Your task to perform on an android device: turn off picture-in-picture Image 0: 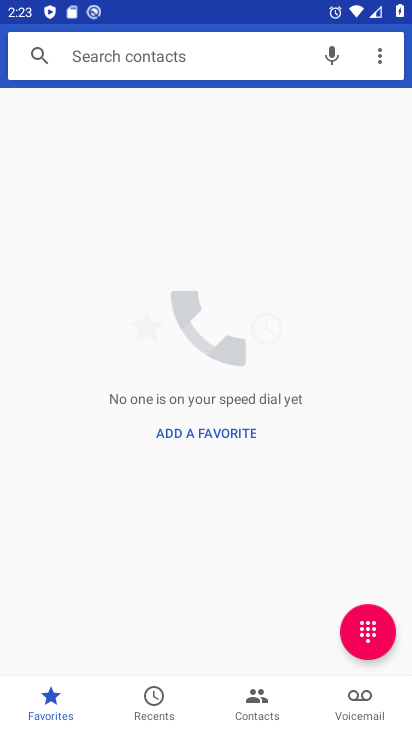
Step 0: press back button
Your task to perform on an android device: turn off picture-in-picture Image 1: 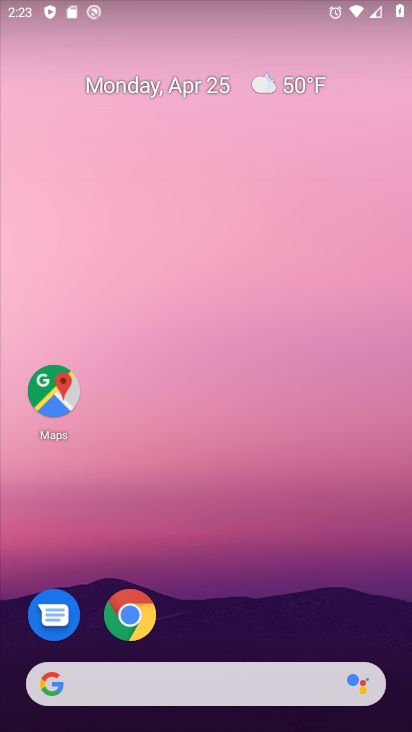
Step 1: click (129, 615)
Your task to perform on an android device: turn off picture-in-picture Image 2: 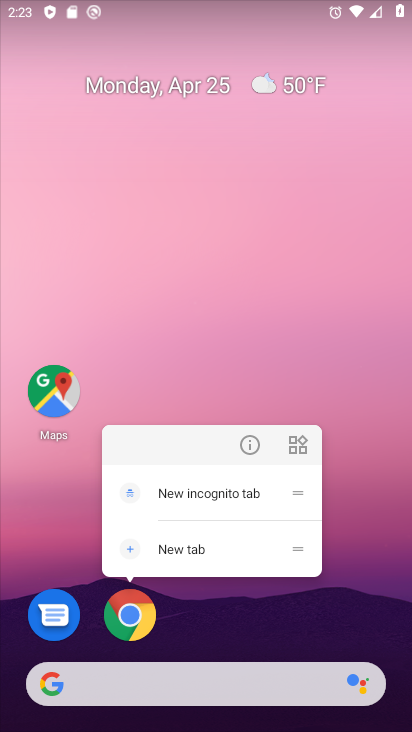
Step 2: click (254, 444)
Your task to perform on an android device: turn off picture-in-picture Image 3: 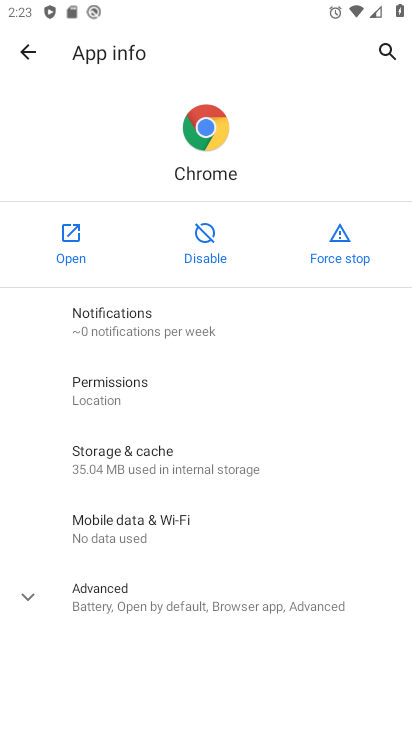
Step 3: click (205, 602)
Your task to perform on an android device: turn off picture-in-picture Image 4: 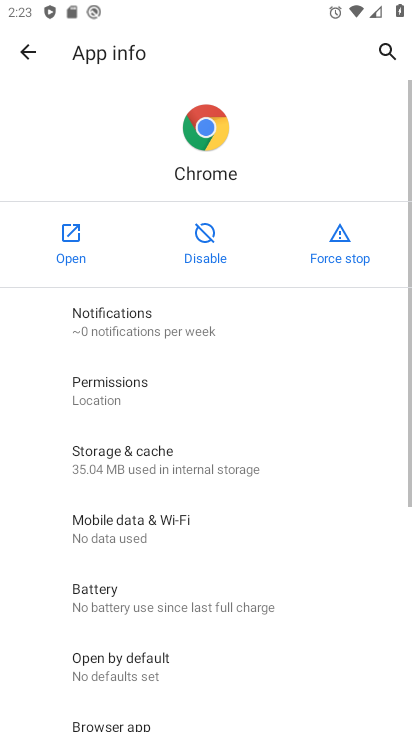
Step 4: drag from (211, 569) to (244, 460)
Your task to perform on an android device: turn off picture-in-picture Image 5: 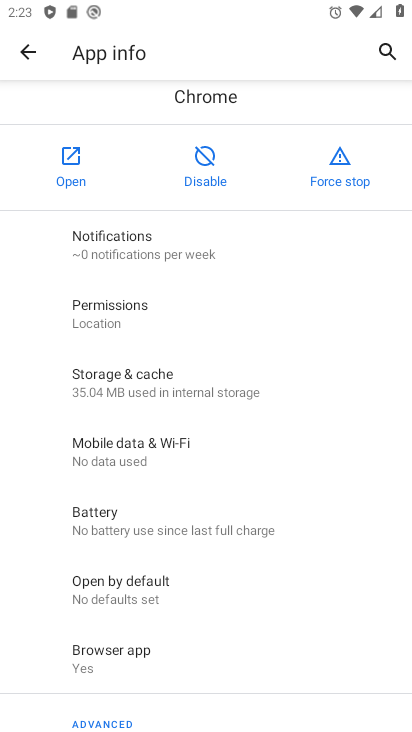
Step 5: drag from (219, 569) to (265, 478)
Your task to perform on an android device: turn off picture-in-picture Image 6: 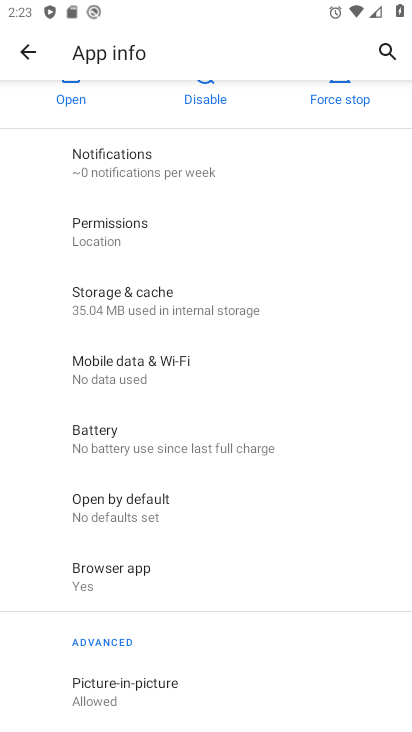
Step 6: drag from (209, 586) to (235, 478)
Your task to perform on an android device: turn off picture-in-picture Image 7: 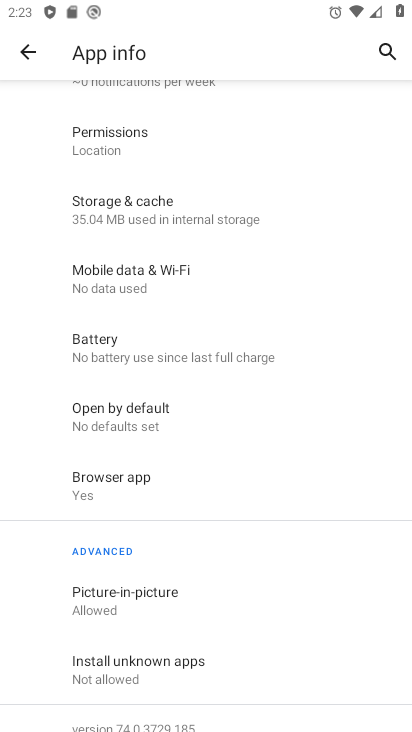
Step 7: click (163, 591)
Your task to perform on an android device: turn off picture-in-picture Image 8: 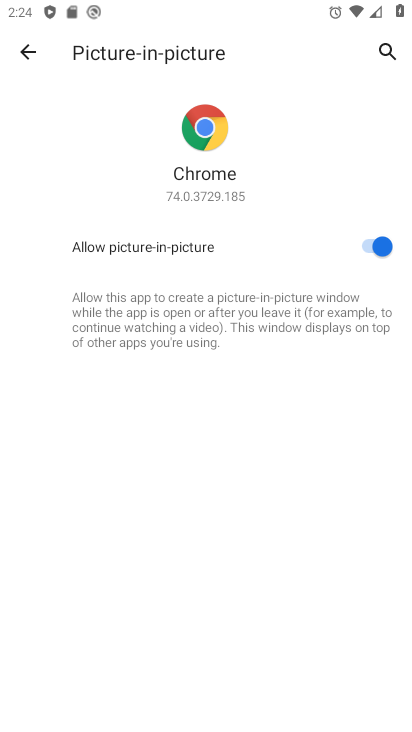
Step 8: click (375, 250)
Your task to perform on an android device: turn off picture-in-picture Image 9: 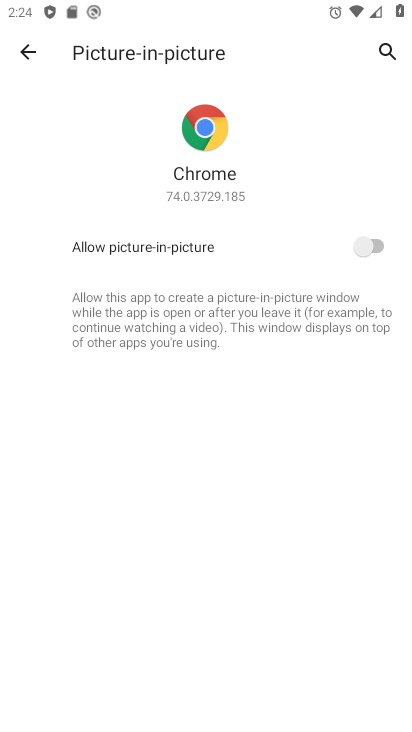
Step 9: task complete